Your task to perform on an android device: Open Reddit.com Image 0: 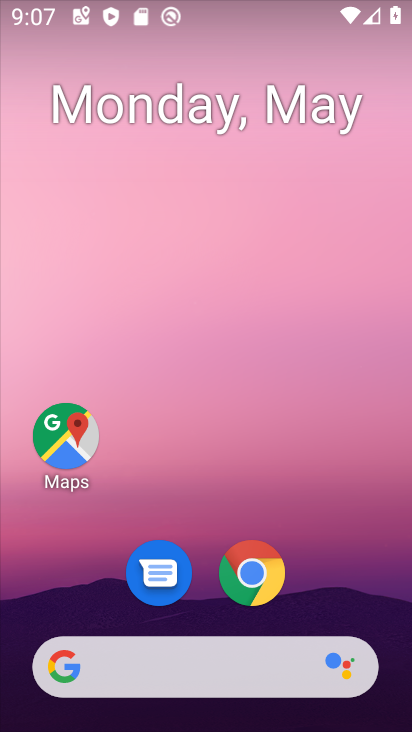
Step 0: click (225, 654)
Your task to perform on an android device: Open Reddit.com Image 1: 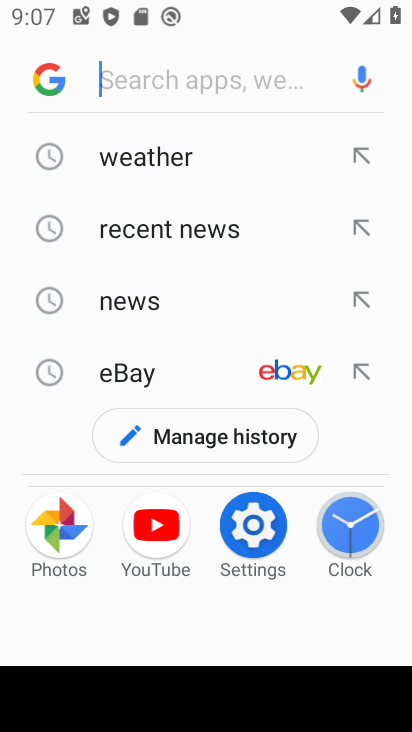
Step 1: type "reddit"
Your task to perform on an android device: Open Reddit.com Image 2: 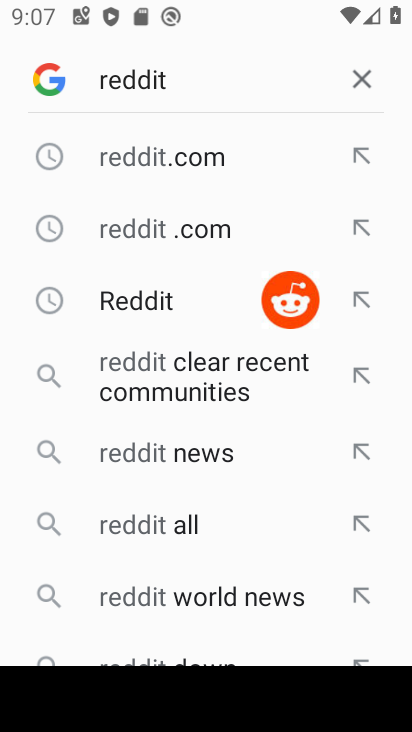
Step 2: click (132, 157)
Your task to perform on an android device: Open Reddit.com Image 3: 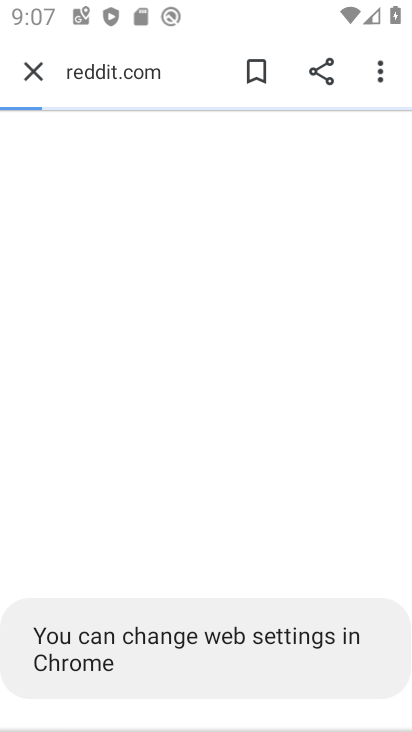
Step 3: task complete